Your task to perform on an android device: Search for "macbook pro 13 inch" on costco, select the first entry, and add it to the cart. Image 0: 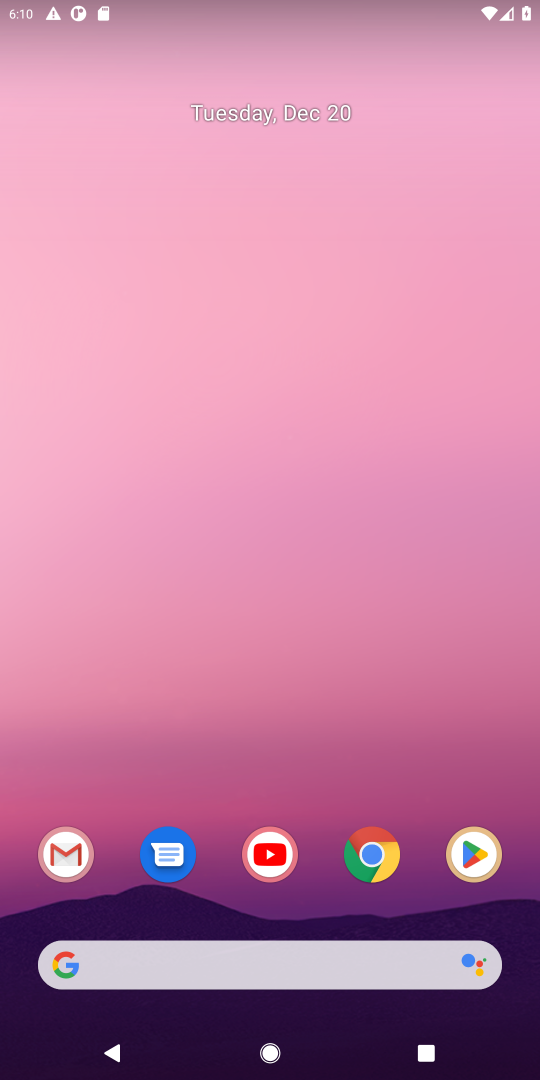
Step 0: click (370, 862)
Your task to perform on an android device: Search for "macbook pro 13 inch" on costco, select the first entry, and add it to the cart. Image 1: 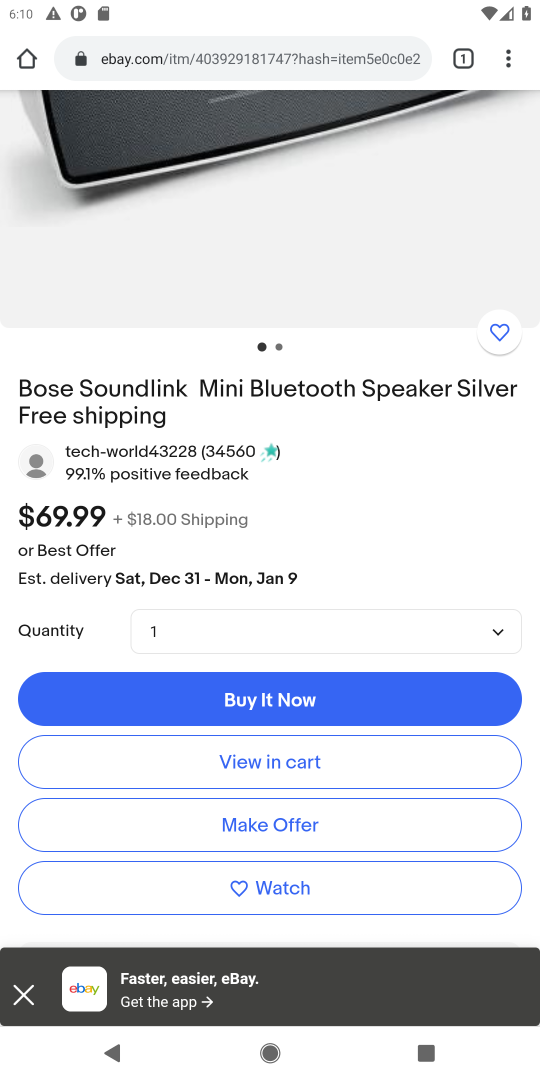
Step 1: click (186, 56)
Your task to perform on an android device: Search for "macbook pro 13 inch" on costco, select the first entry, and add it to the cart. Image 2: 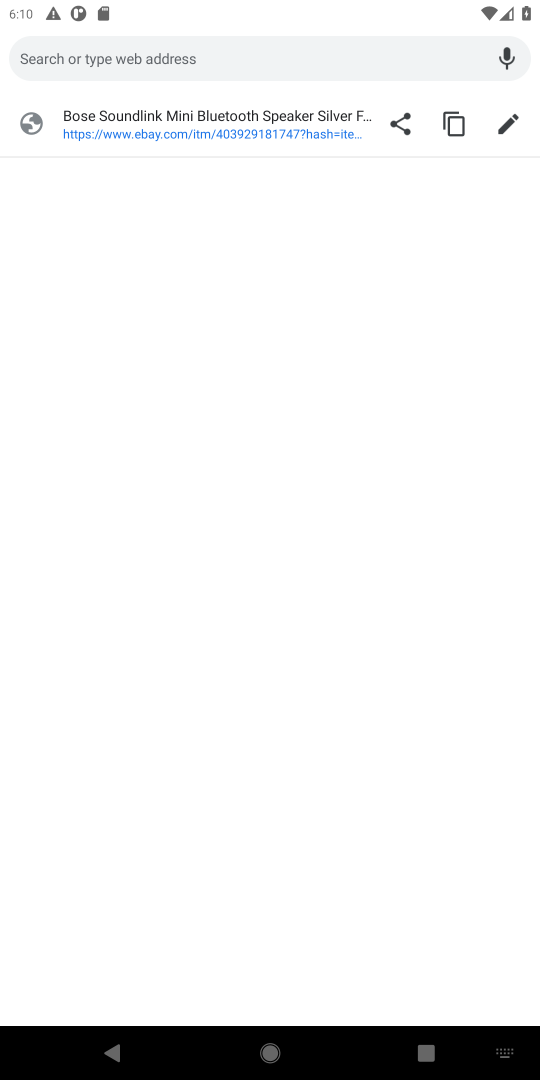
Step 2: type "costco.com"
Your task to perform on an android device: Search for "macbook pro 13 inch" on costco, select the first entry, and add it to the cart. Image 3: 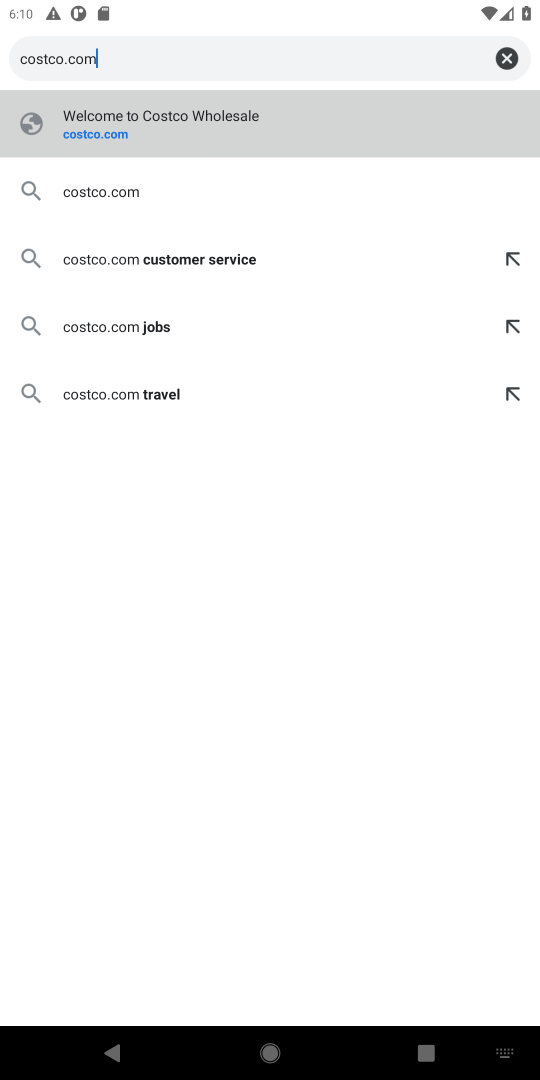
Step 3: click (107, 127)
Your task to perform on an android device: Search for "macbook pro 13 inch" on costco, select the first entry, and add it to the cart. Image 4: 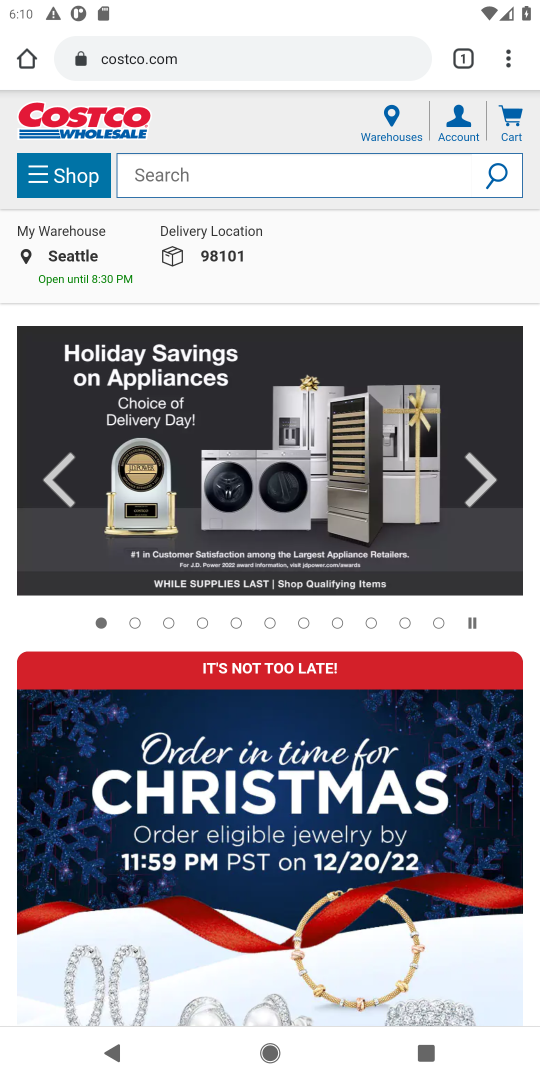
Step 4: click (174, 178)
Your task to perform on an android device: Search for "macbook pro 13 inch" on costco, select the first entry, and add it to the cart. Image 5: 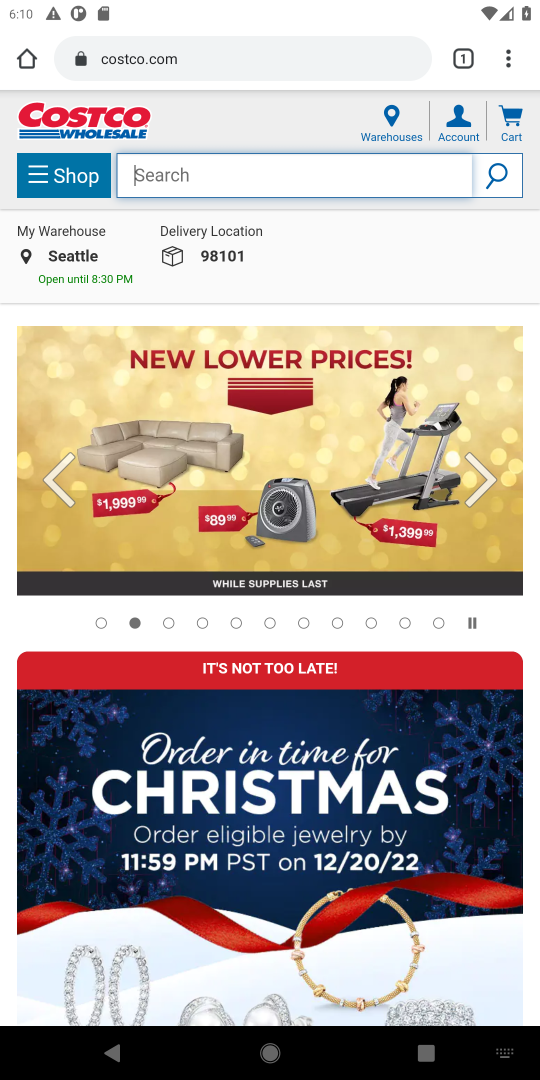
Step 5: type "macbook pro 13 inch"
Your task to perform on an android device: Search for "macbook pro 13 inch" on costco, select the first entry, and add it to the cart. Image 6: 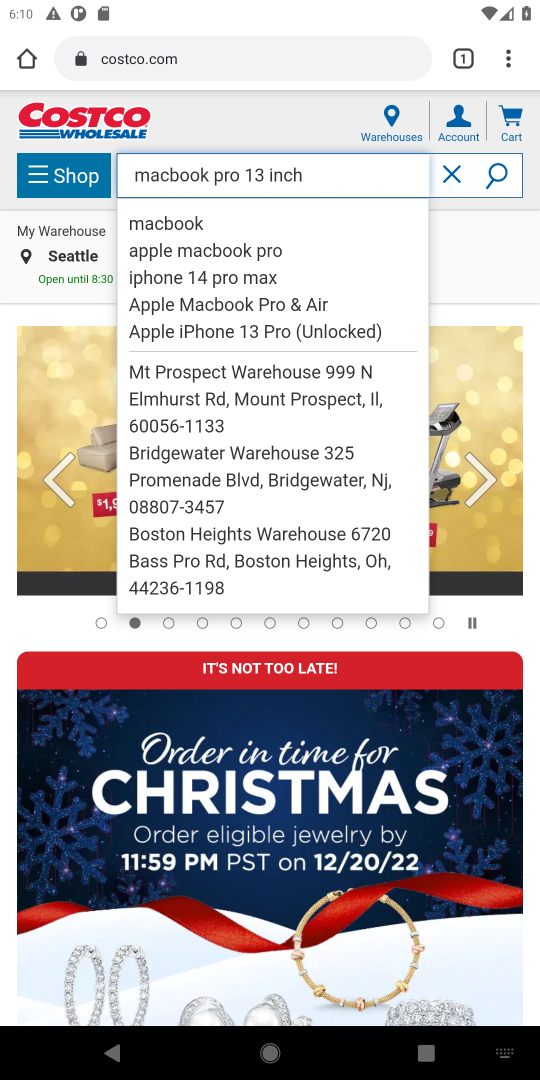
Step 6: click (499, 179)
Your task to perform on an android device: Search for "macbook pro 13 inch" on costco, select the first entry, and add it to the cart. Image 7: 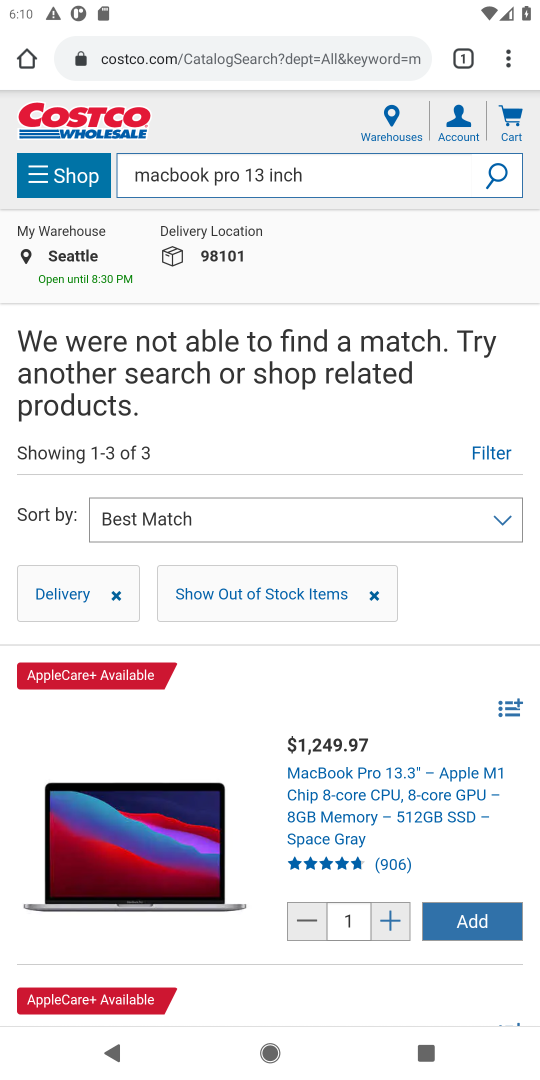
Step 7: drag from (237, 746) to (240, 426)
Your task to perform on an android device: Search for "macbook pro 13 inch" on costco, select the first entry, and add it to the cart. Image 8: 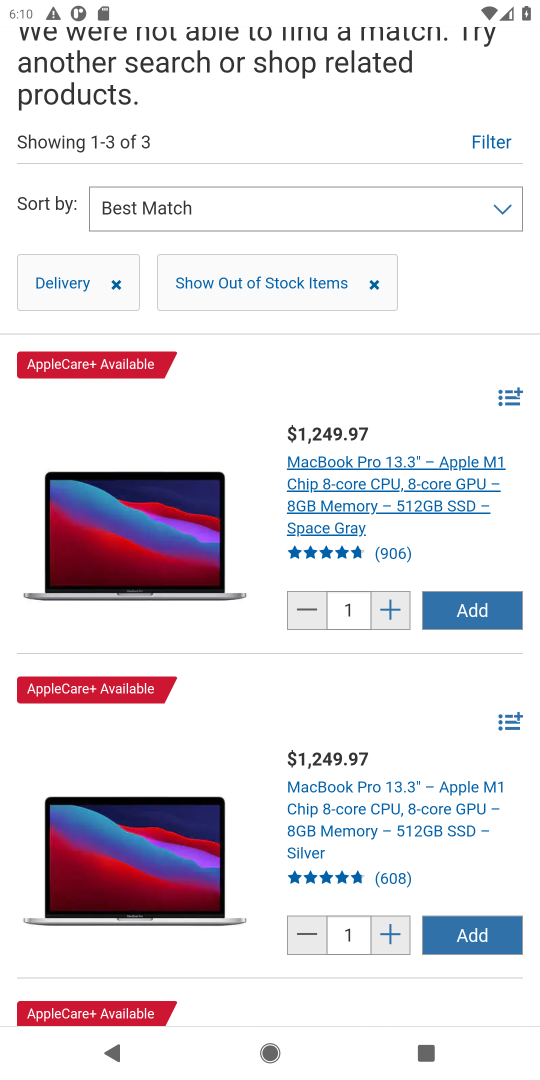
Step 8: click (458, 615)
Your task to perform on an android device: Search for "macbook pro 13 inch" on costco, select the first entry, and add it to the cart. Image 9: 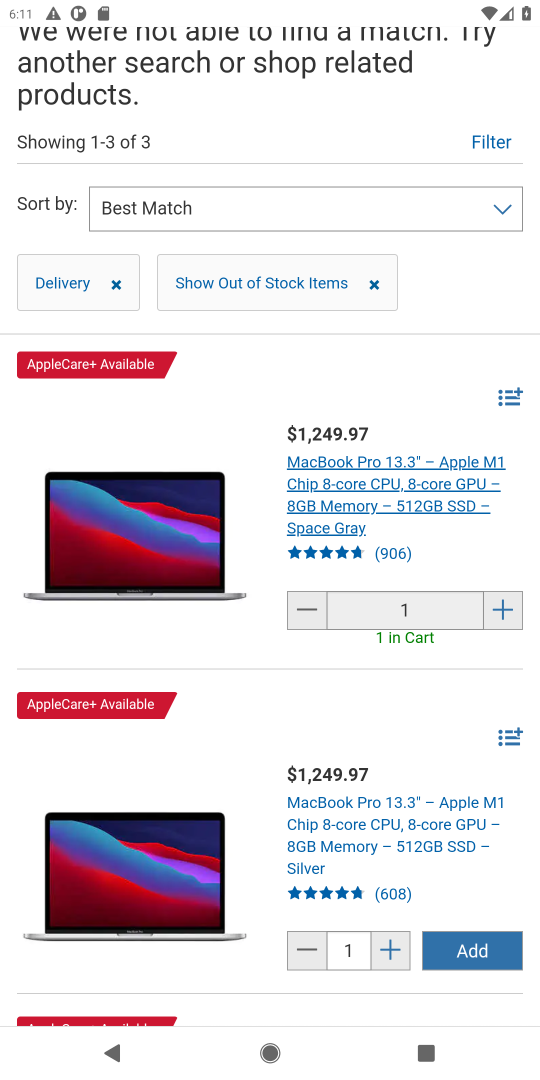
Step 9: task complete